Your task to perform on an android device: Do I have any events this weekend? Image 0: 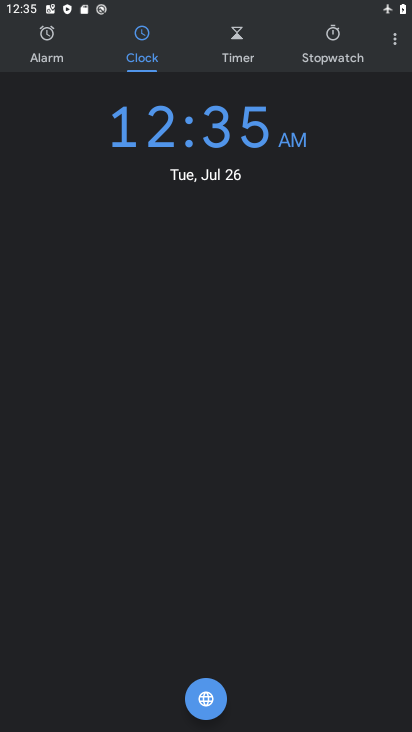
Step 0: press home button
Your task to perform on an android device: Do I have any events this weekend? Image 1: 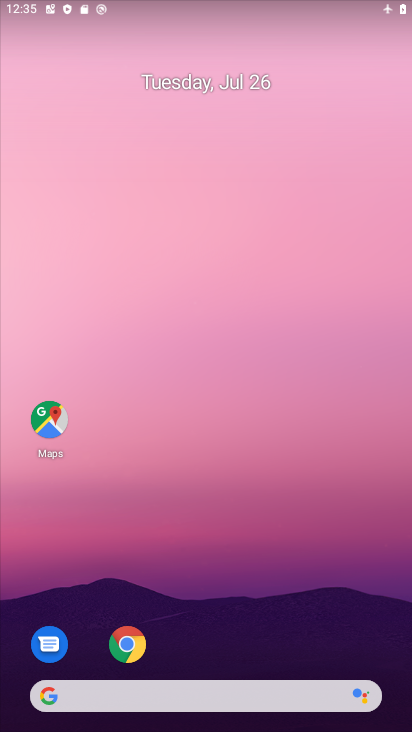
Step 1: drag from (211, 634) to (261, 74)
Your task to perform on an android device: Do I have any events this weekend? Image 2: 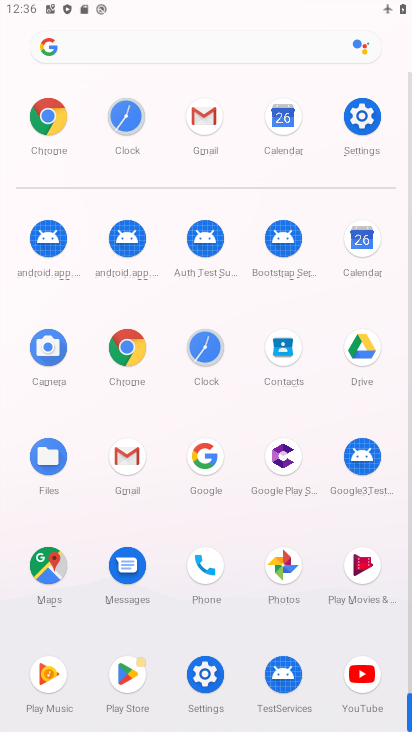
Step 2: click (341, 259)
Your task to perform on an android device: Do I have any events this weekend? Image 3: 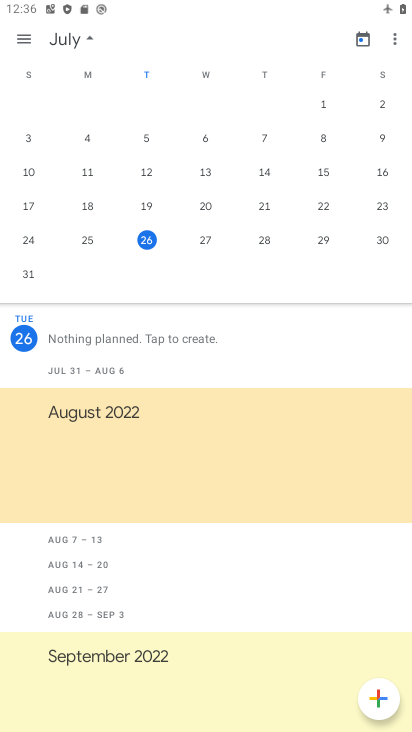
Step 3: click (379, 241)
Your task to perform on an android device: Do I have any events this weekend? Image 4: 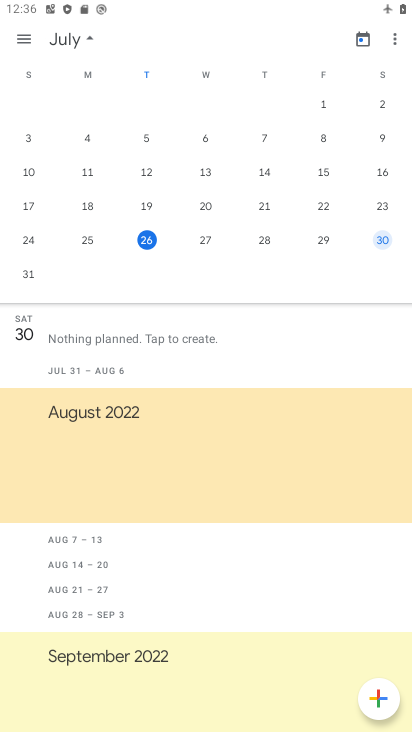
Step 4: task complete